Your task to perform on an android device: check battery use Image 0: 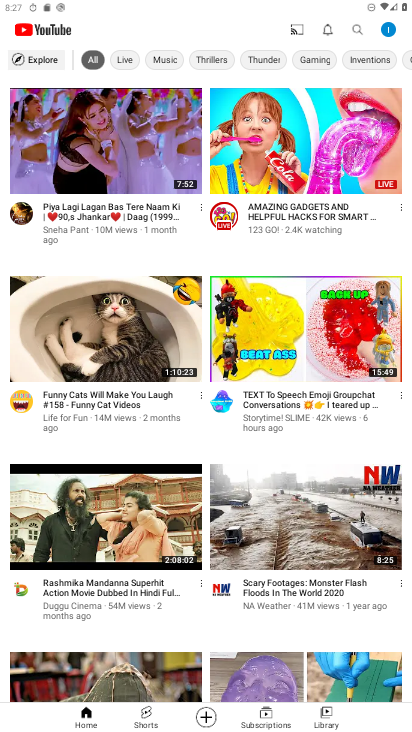
Step 0: press home button
Your task to perform on an android device: check battery use Image 1: 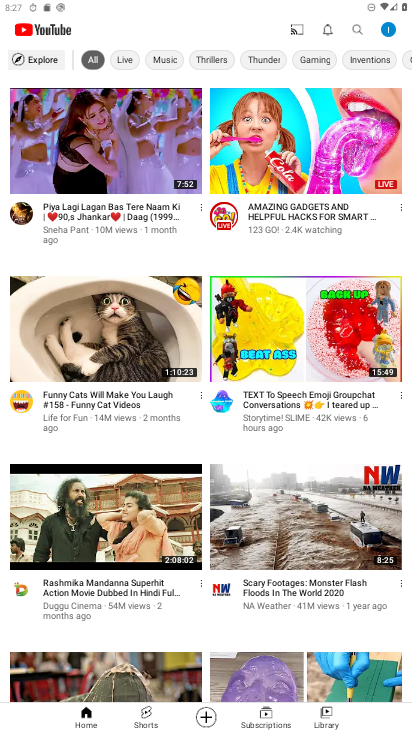
Step 1: press home button
Your task to perform on an android device: check battery use Image 2: 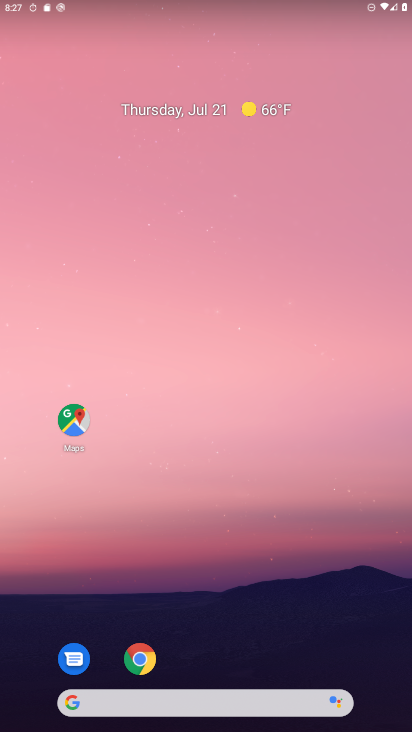
Step 2: drag from (180, 686) to (247, 0)
Your task to perform on an android device: check battery use Image 3: 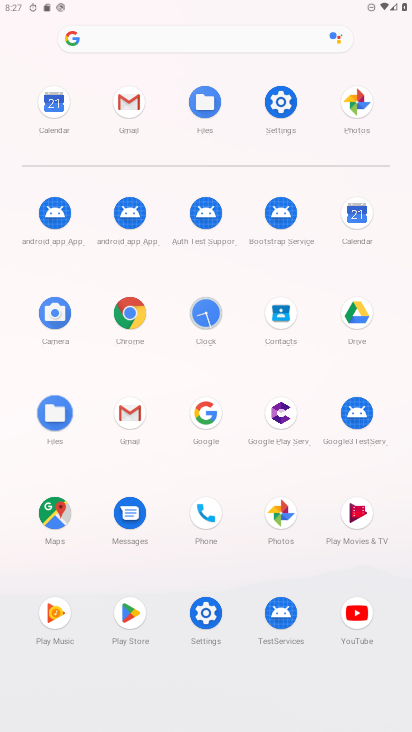
Step 3: click (278, 106)
Your task to perform on an android device: check battery use Image 4: 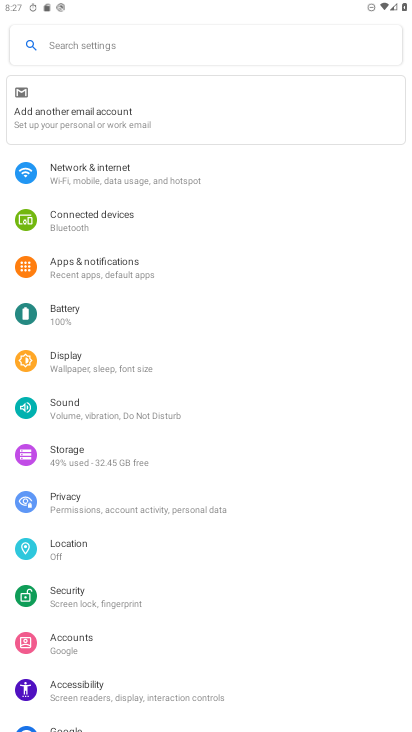
Step 4: click (87, 311)
Your task to perform on an android device: check battery use Image 5: 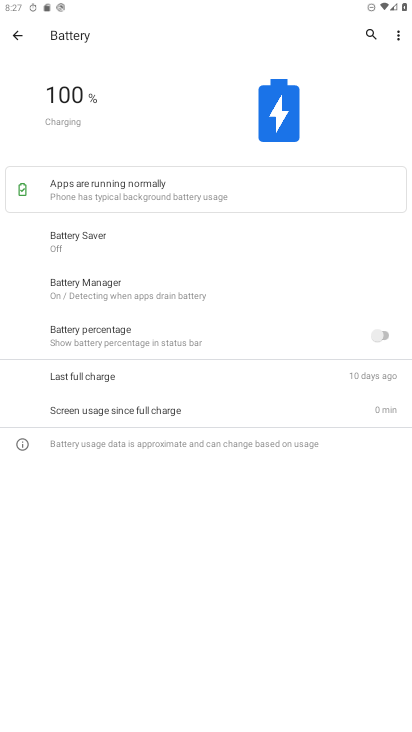
Step 5: task complete